Your task to perform on an android device: Go to wifi settings Image 0: 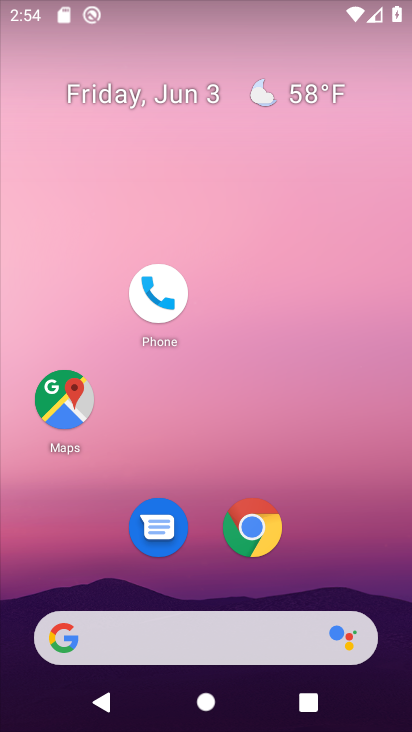
Step 0: drag from (100, 601) to (186, 142)
Your task to perform on an android device: Go to wifi settings Image 1: 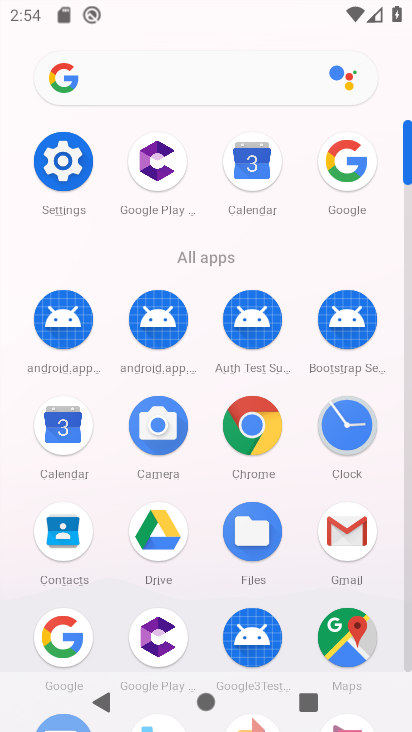
Step 1: drag from (182, 176) to (220, 458)
Your task to perform on an android device: Go to wifi settings Image 2: 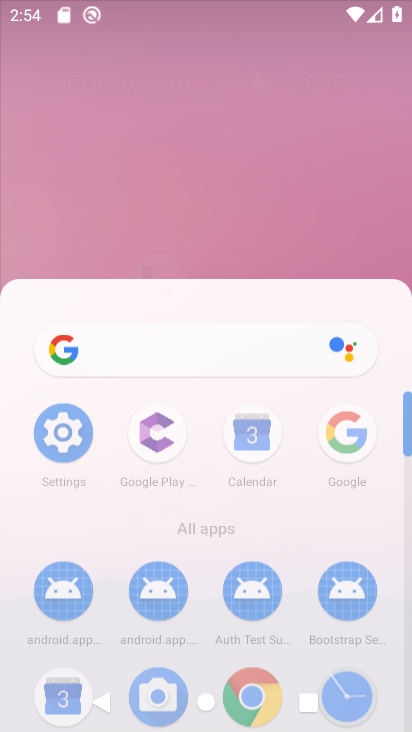
Step 2: click (220, 458)
Your task to perform on an android device: Go to wifi settings Image 3: 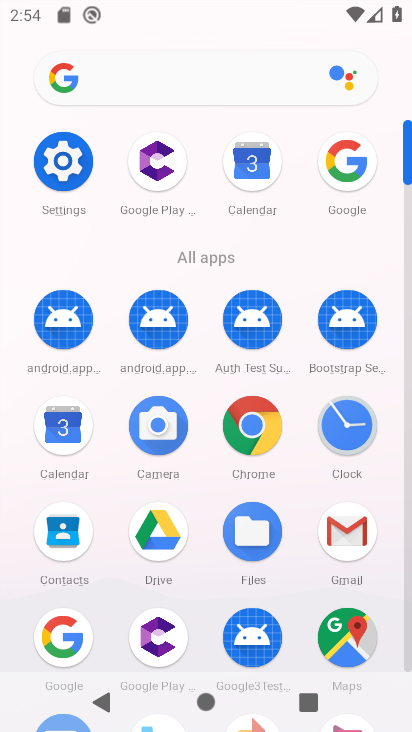
Step 3: drag from (162, 671) to (205, 429)
Your task to perform on an android device: Go to wifi settings Image 4: 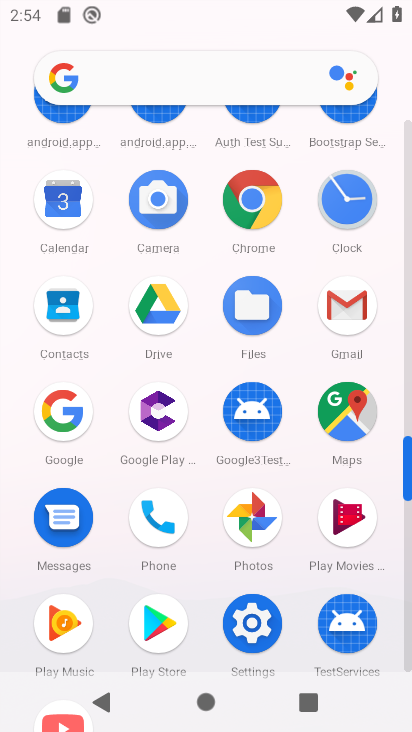
Step 4: click (250, 629)
Your task to perform on an android device: Go to wifi settings Image 5: 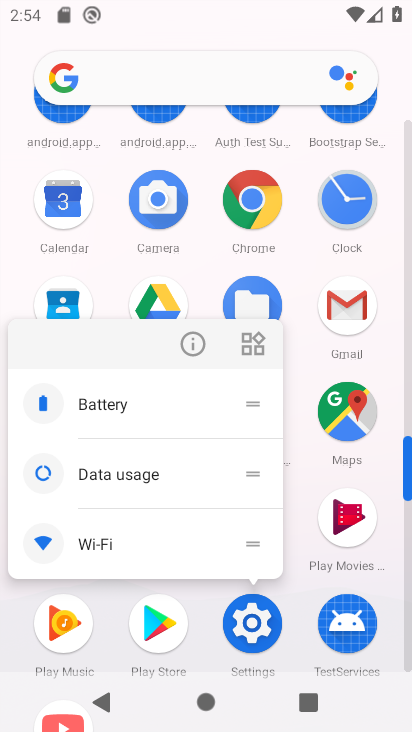
Step 5: click (252, 628)
Your task to perform on an android device: Go to wifi settings Image 6: 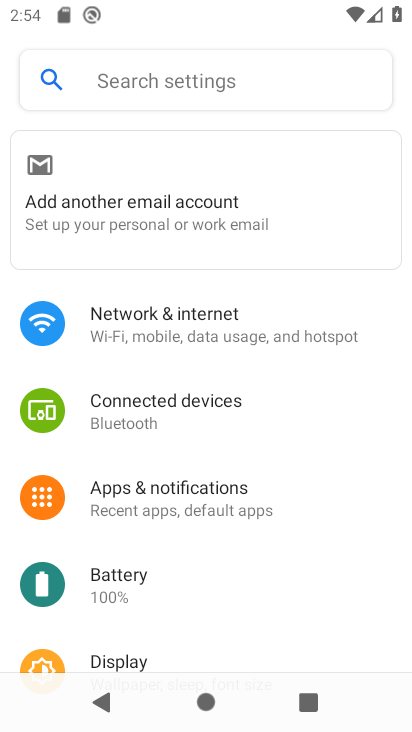
Step 6: click (242, 345)
Your task to perform on an android device: Go to wifi settings Image 7: 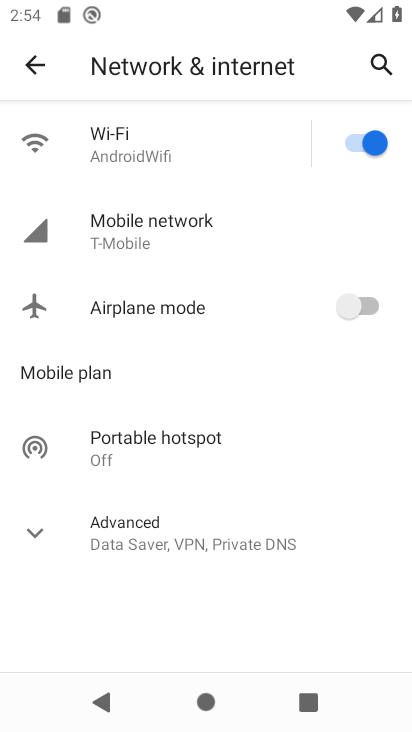
Step 7: click (169, 167)
Your task to perform on an android device: Go to wifi settings Image 8: 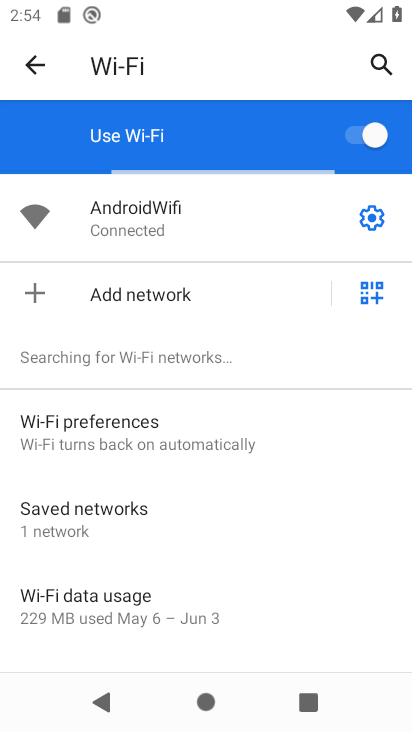
Step 8: task complete